Your task to perform on an android device: change alarm snooze length Image 0: 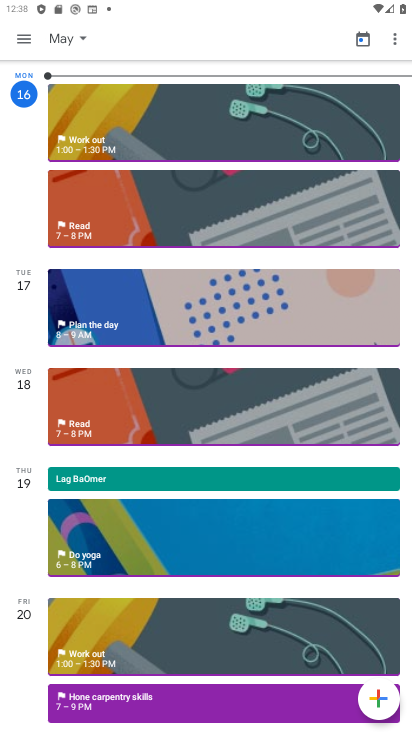
Step 0: press home button
Your task to perform on an android device: change alarm snooze length Image 1: 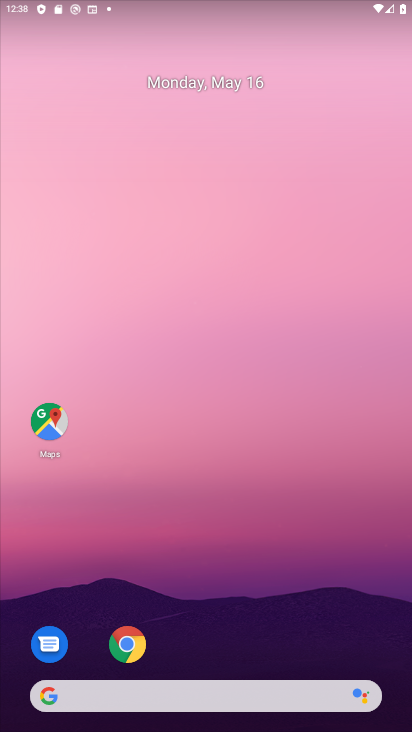
Step 1: drag from (184, 691) to (212, 214)
Your task to perform on an android device: change alarm snooze length Image 2: 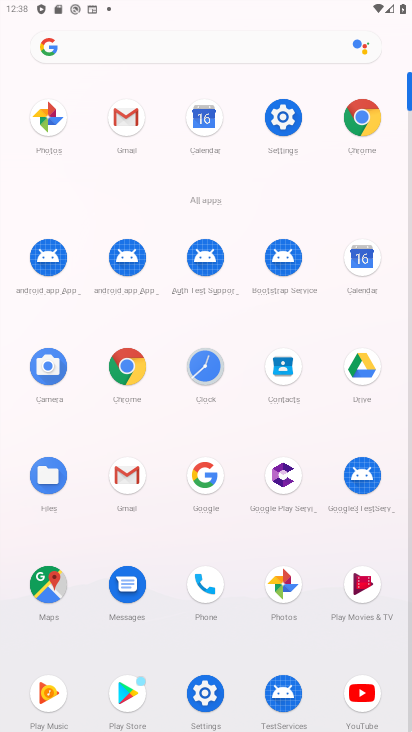
Step 2: click (268, 132)
Your task to perform on an android device: change alarm snooze length Image 3: 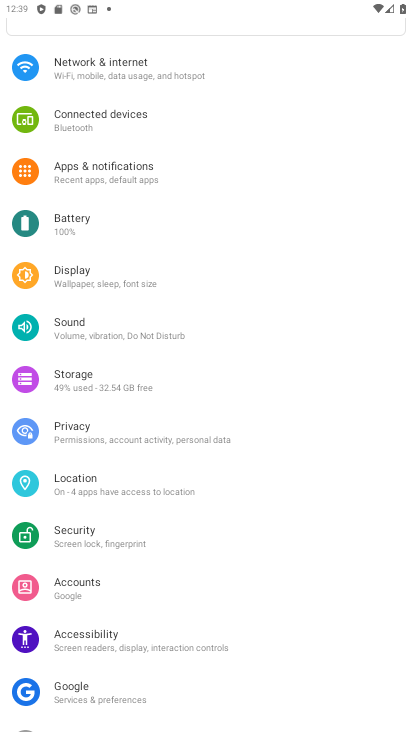
Step 3: press back button
Your task to perform on an android device: change alarm snooze length Image 4: 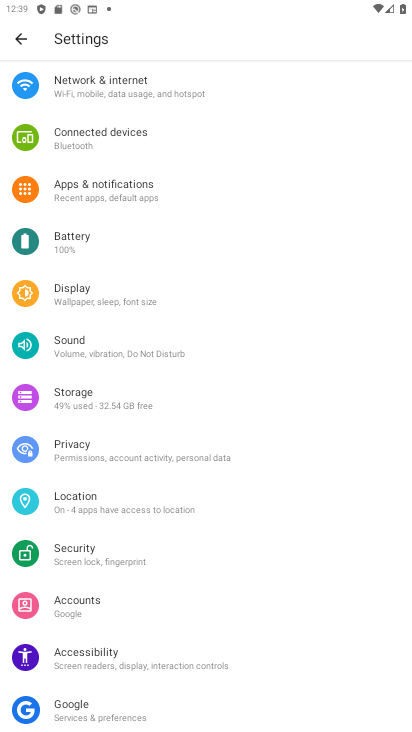
Step 4: press back button
Your task to perform on an android device: change alarm snooze length Image 5: 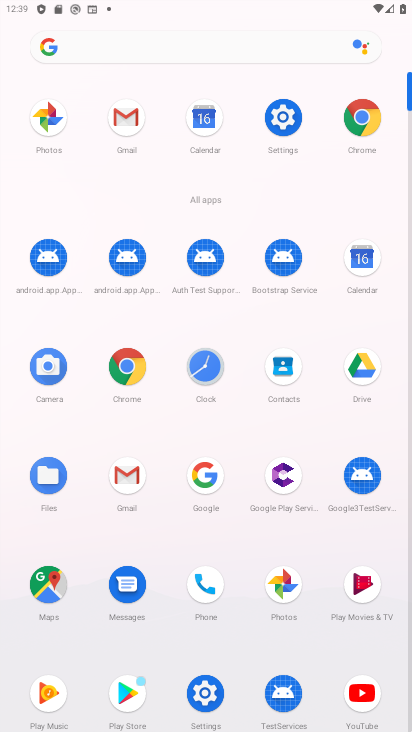
Step 5: click (205, 373)
Your task to perform on an android device: change alarm snooze length Image 6: 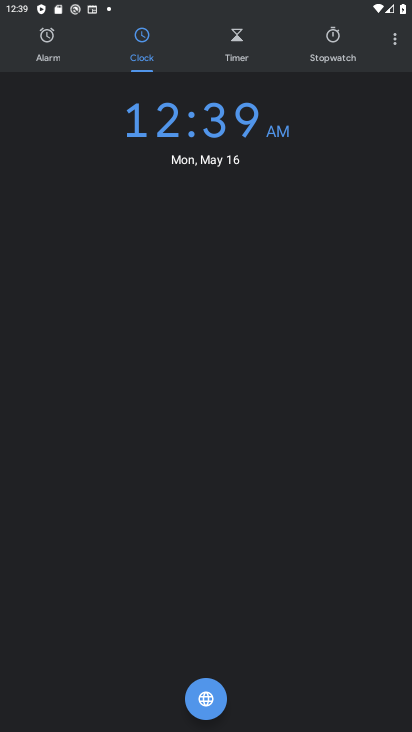
Step 6: click (391, 53)
Your task to perform on an android device: change alarm snooze length Image 7: 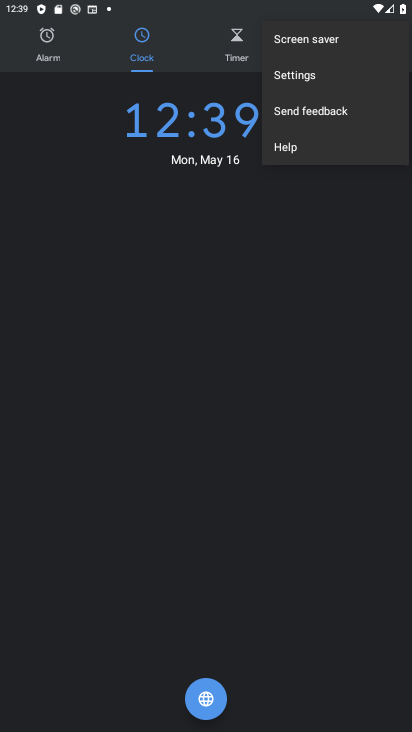
Step 7: click (309, 80)
Your task to perform on an android device: change alarm snooze length Image 8: 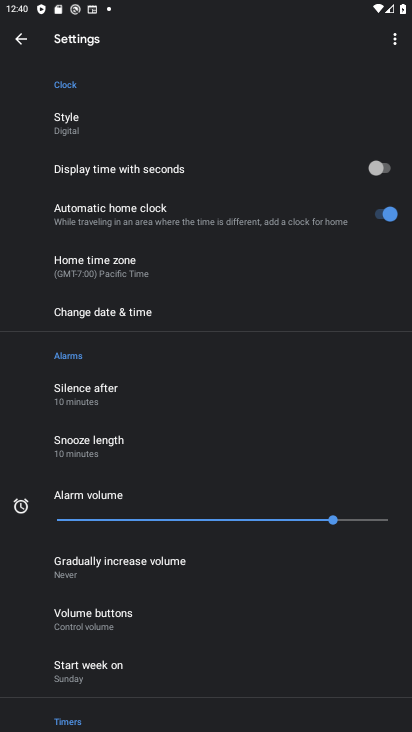
Step 8: drag from (119, 418) to (130, 24)
Your task to perform on an android device: change alarm snooze length Image 9: 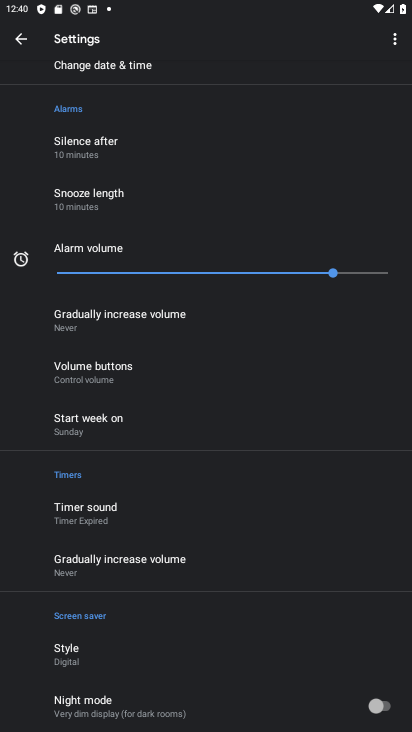
Step 9: click (114, 191)
Your task to perform on an android device: change alarm snooze length Image 10: 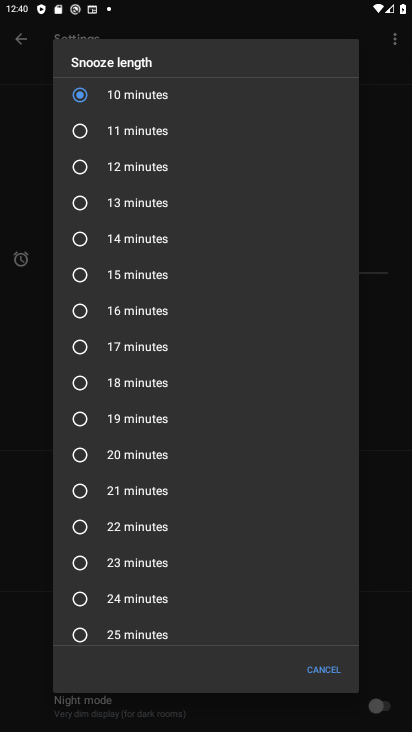
Step 10: click (98, 635)
Your task to perform on an android device: change alarm snooze length Image 11: 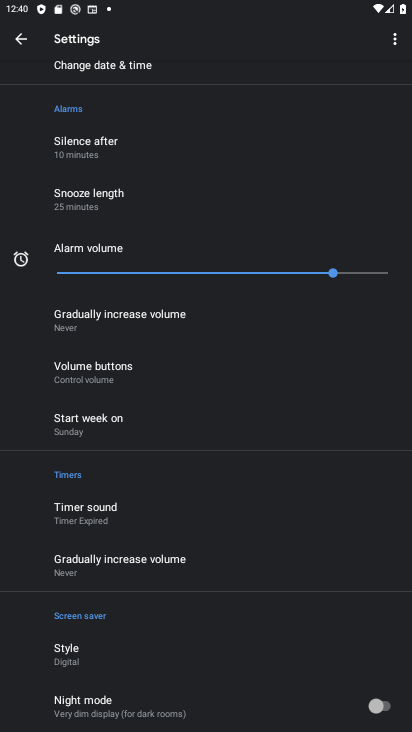
Step 11: task complete